Your task to perform on an android device: Empty the shopping cart on newegg. Add "macbook" to the cart on newegg Image 0: 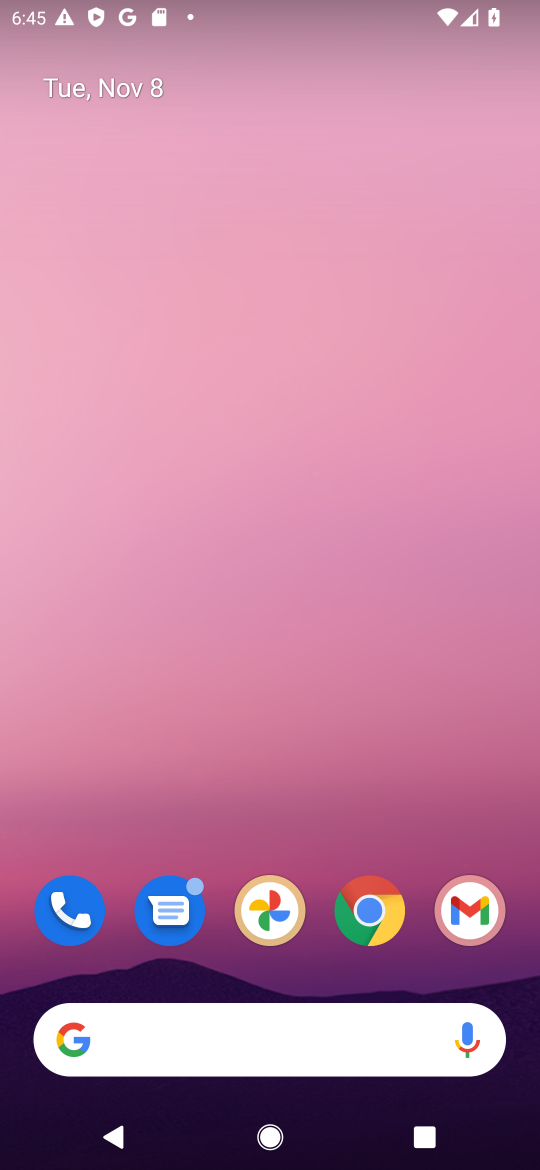
Step 0: click (373, 906)
Your task to perform on an android device: Empty the shopping cart on newegg. Add "macbook" to the cart on newegg Image 1: 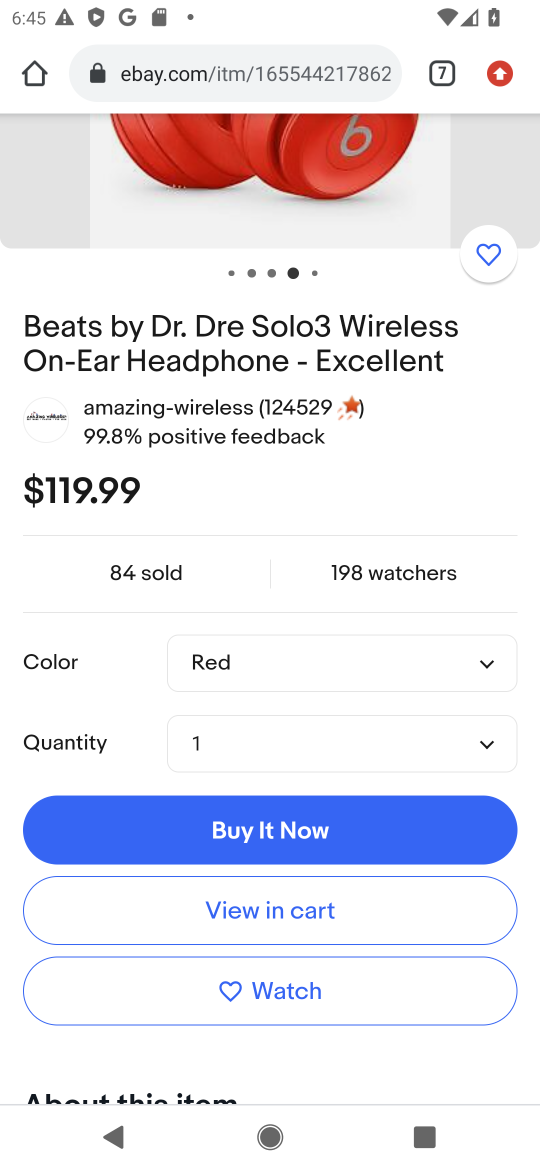
Step 1: click (437, 77)
Your task to perform on an android device: Empty the shopping cart on newegg. Add "macbook" to the cart on newegg Image 2: 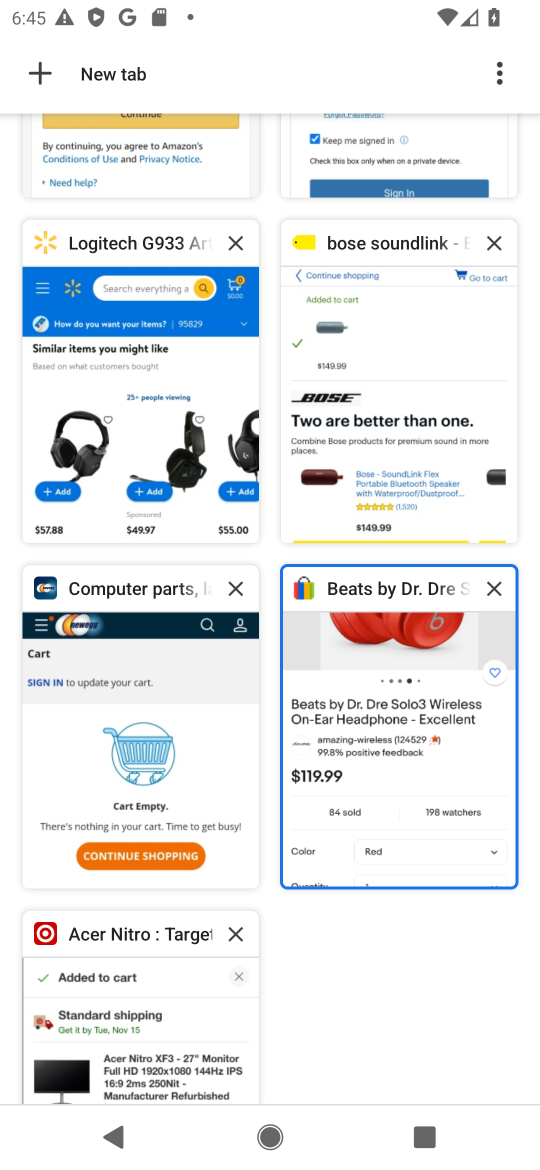
Step 2: click (135, 704)
Your task to perform on an android device: Empty the shopping cart on newegg. Add "macbook" to the cart on newegg Image 3: 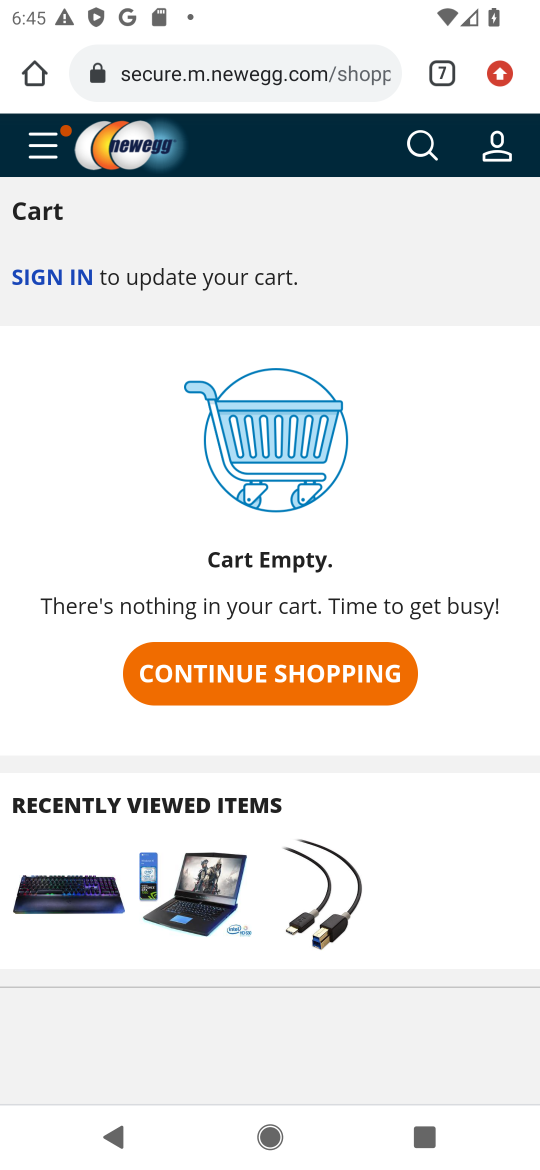
Step 3: click (418, 145)
Your task to perform on an android device: Empty the shopping cart on newegg. Add "macbook" to the cart on newegg Image 4: 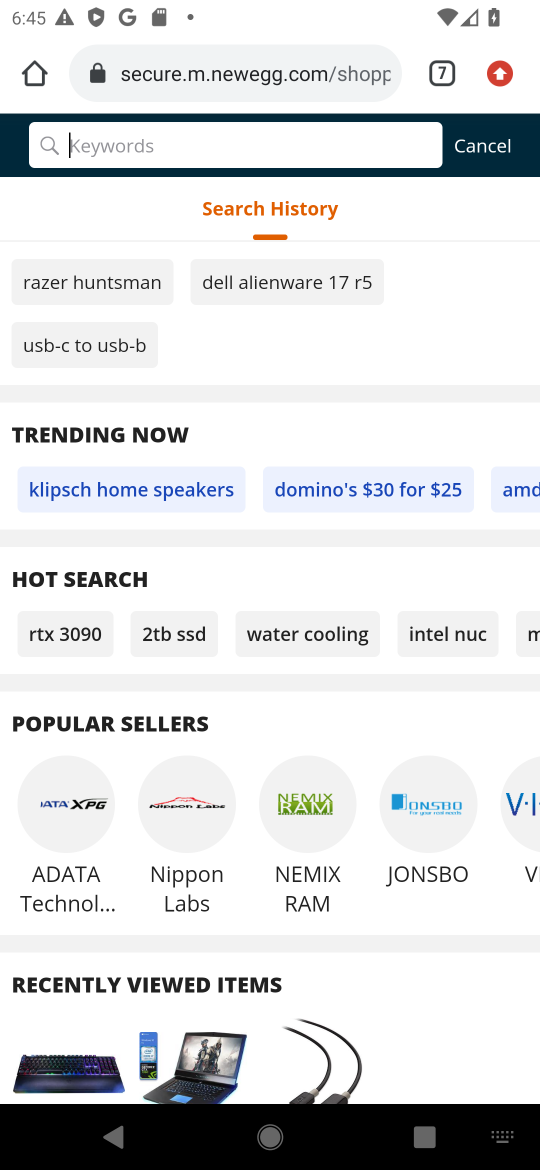
Step 4: type "macbook"
Your task to perform on an android device: Empty the shopping cart on newegg. Add "macbook" to the cart on newegg Image 5: 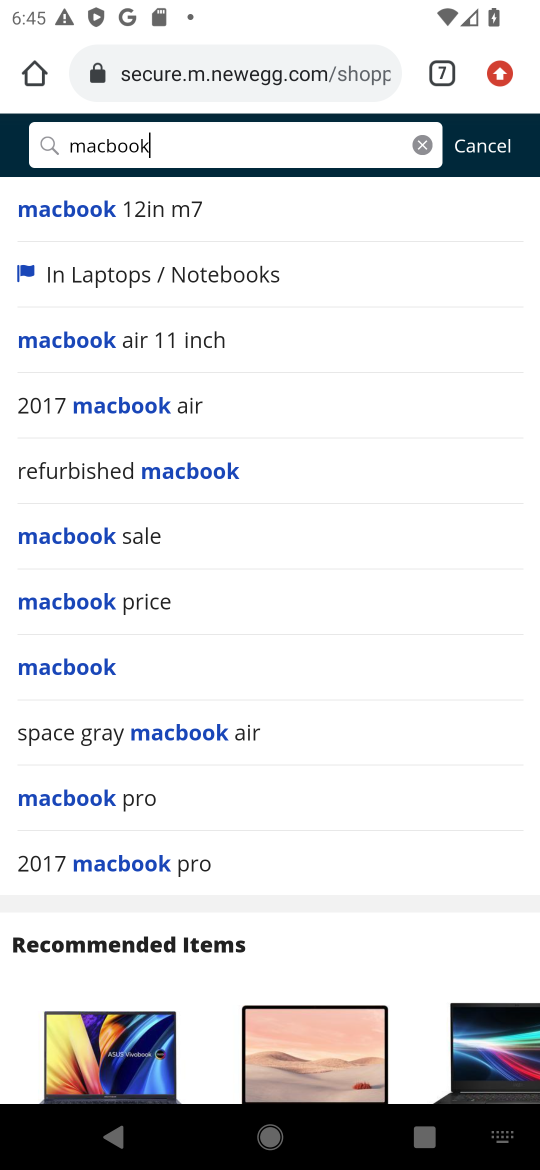
Step 5: click (55, 208)
Your task to perform on an android device: Empty the shopping cart on newegg. Add "macbook" to the cart on newegg Image 6: 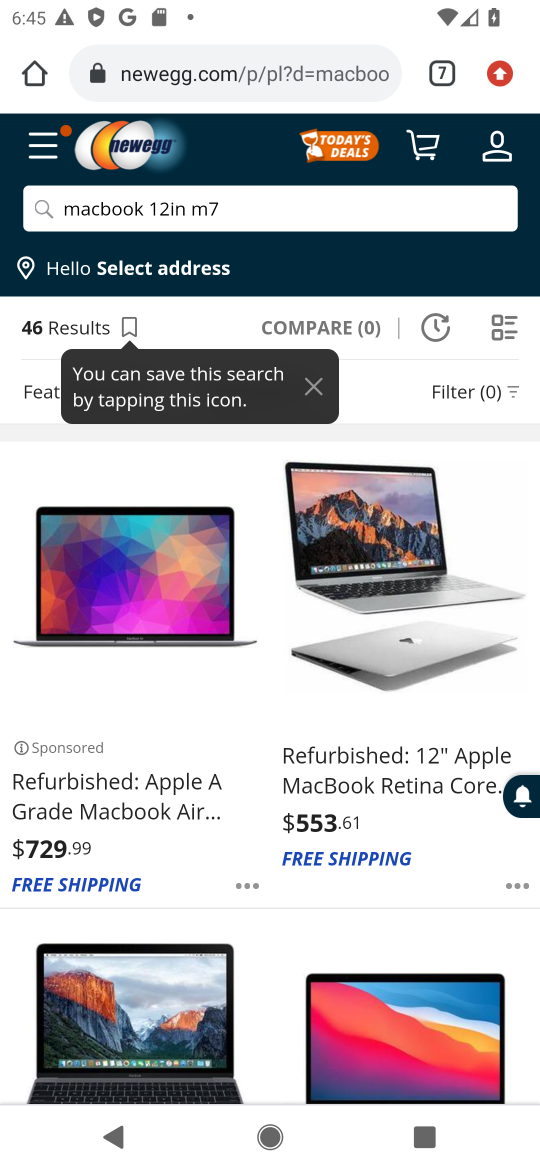
Step 6: click (331, 786)
Your task to perform on an android device: Empty the shopping cart on newegg. Add "macbook" to the cart on newegg Image 7: 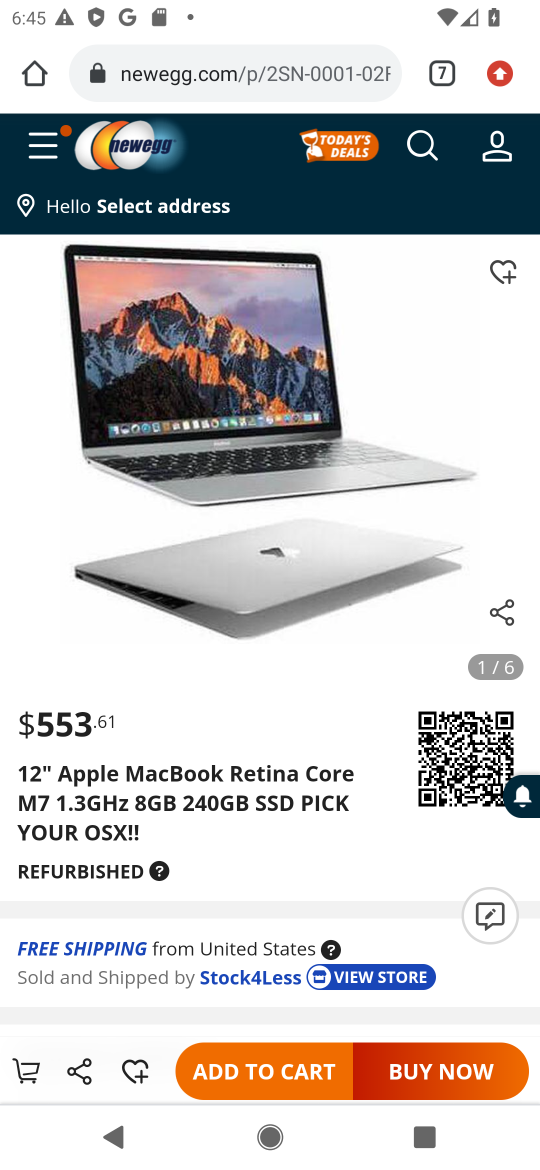
Step 7: click (263, 1069)
Your task to perform on an android device: Empty the shopping cart on newegg. Add "macbook" to the cart on newegg Image 8: 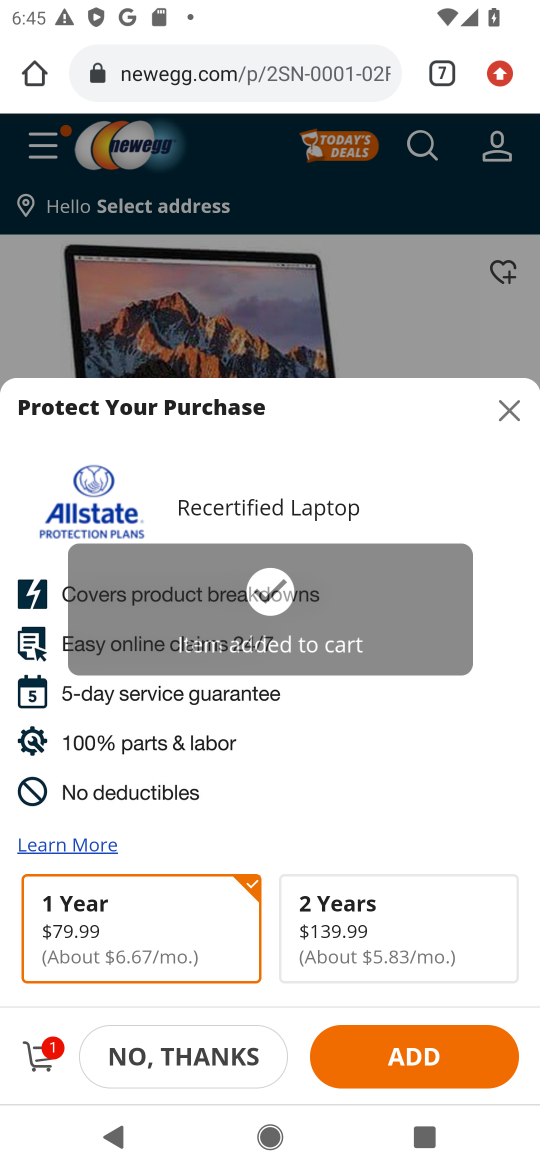
Step 8: task complete